Your task to perform on an android device: Search for a 3D printer on aliexpress. Image 0: 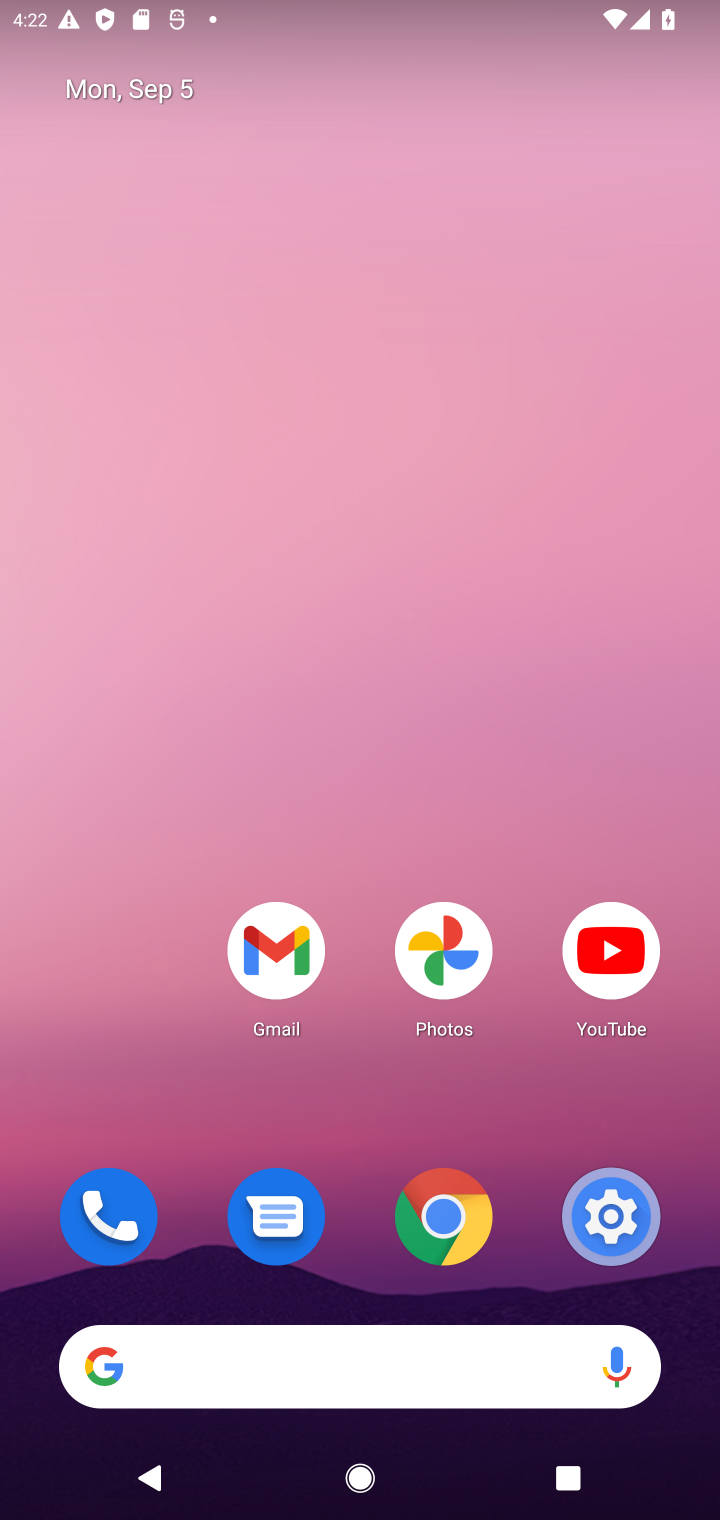
Step 0: press home button
Your task to perform on an android device: Search for a 3D printer on aliexpress. Image 1: 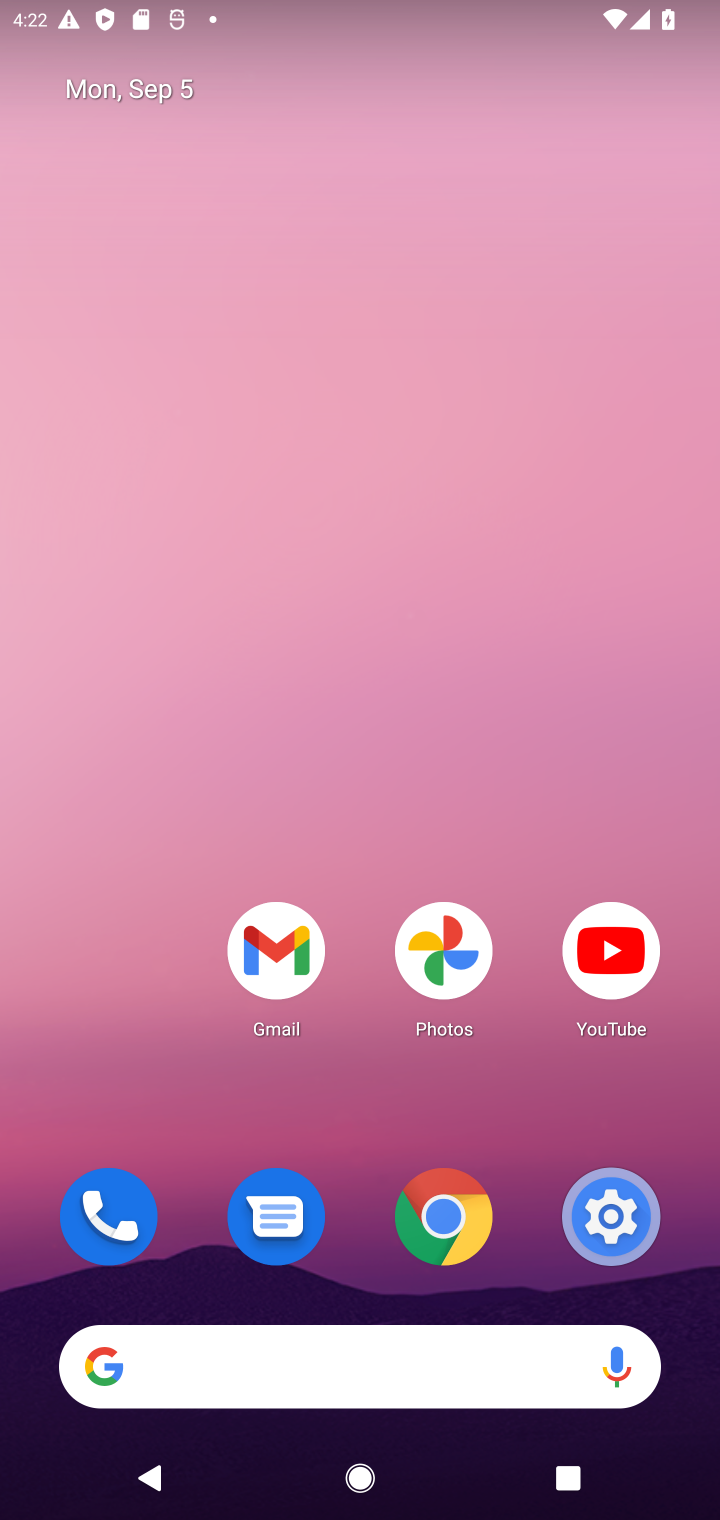
Step 1: click (81, 1370)
Your task to perform on an android device: Search for a 3D printer on aliexpress. Image 2: 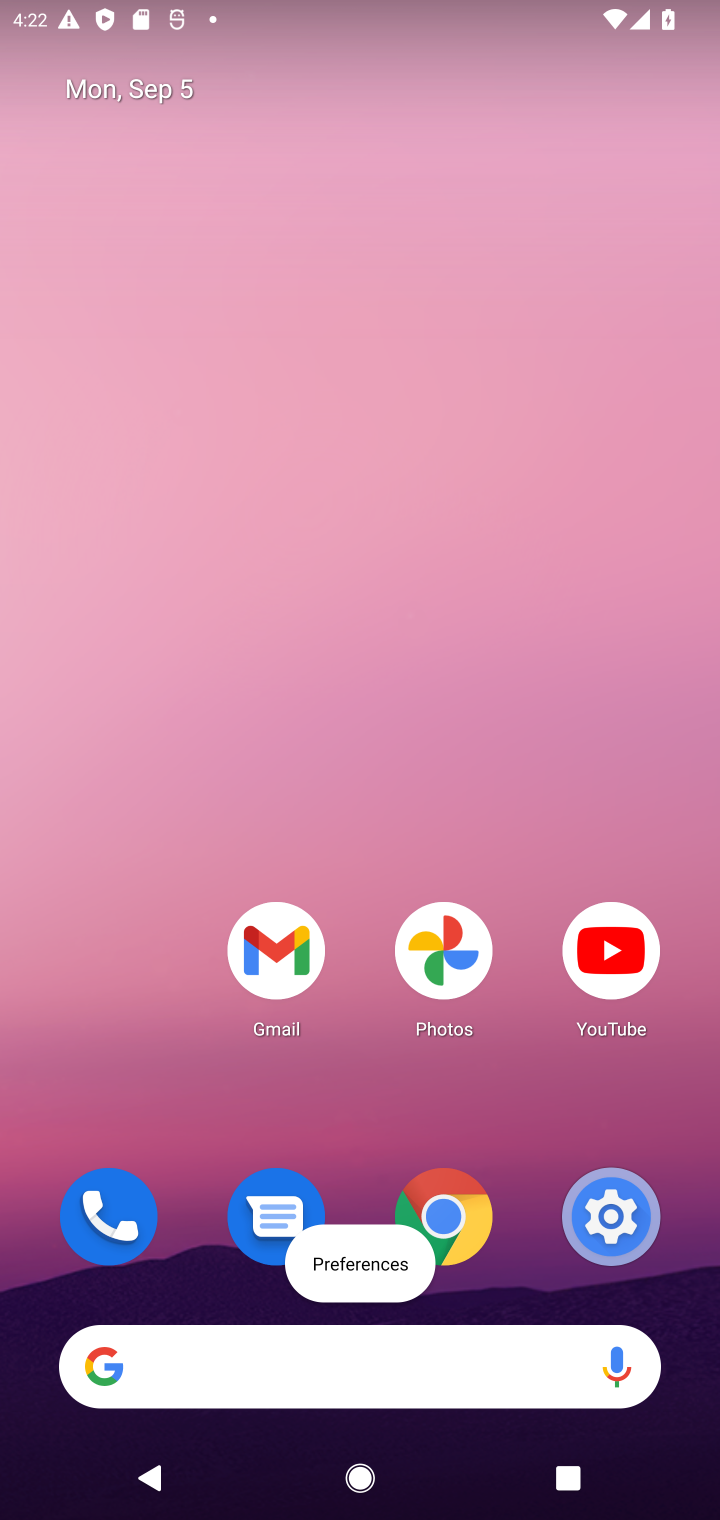
Step 2: click (98, 1349)
Your task to perform on an android device: Search for a 3D printer on aliexpress. Image 3: 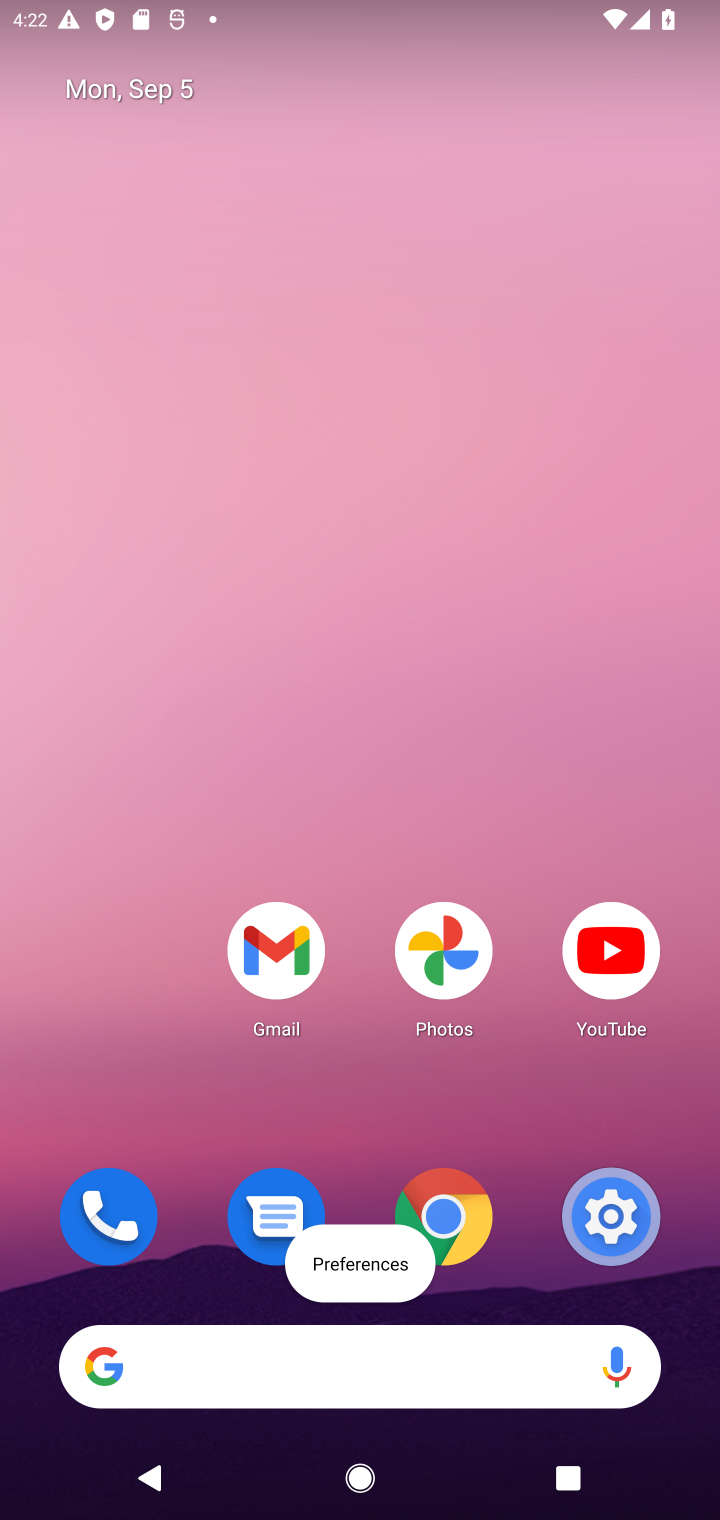
Step 3: click (100, 1362)
Your task to perform on an android device: Search for a 3D printer on aliexpress. Image 4: 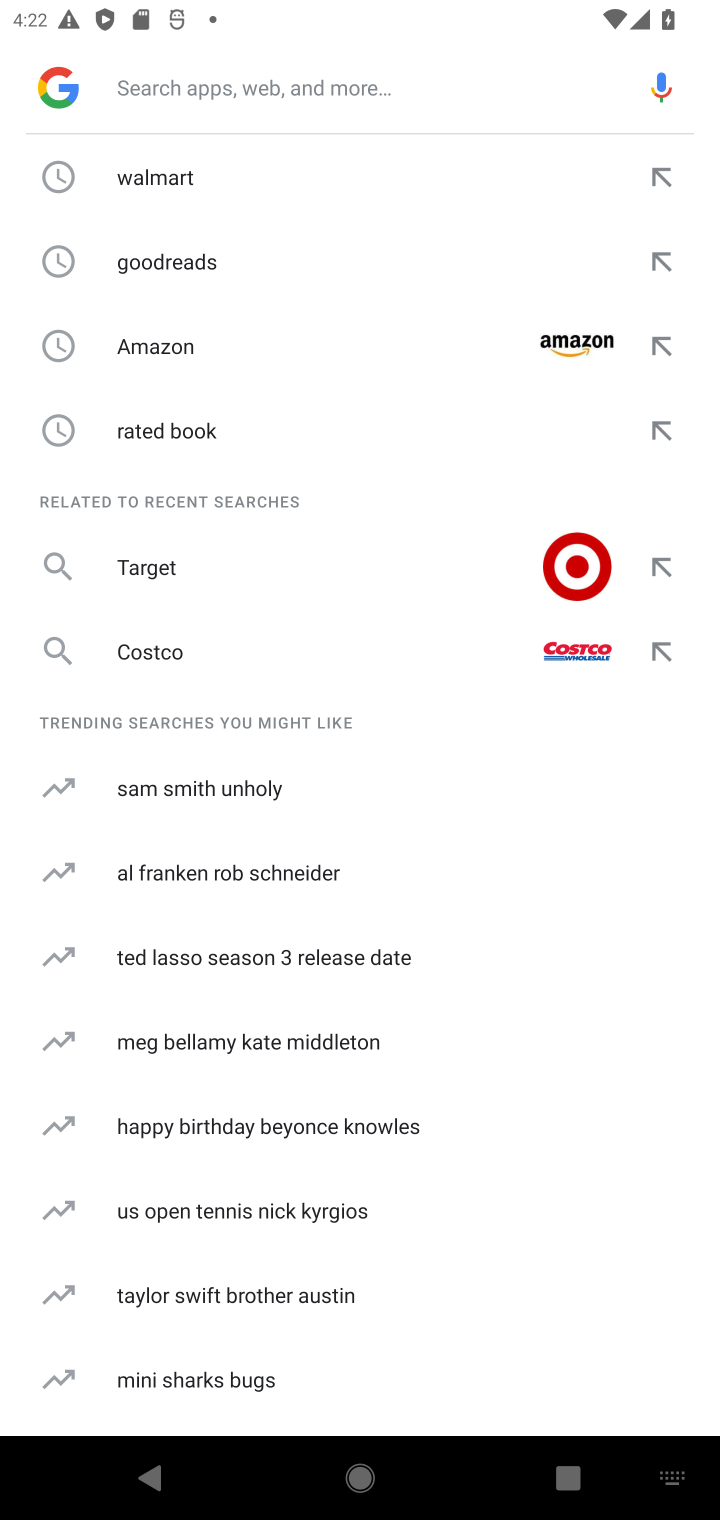
Step 4: type "aliexpress"
Your task to perform on an android device: Search for a 3D printer on aliexpress. Image 5: 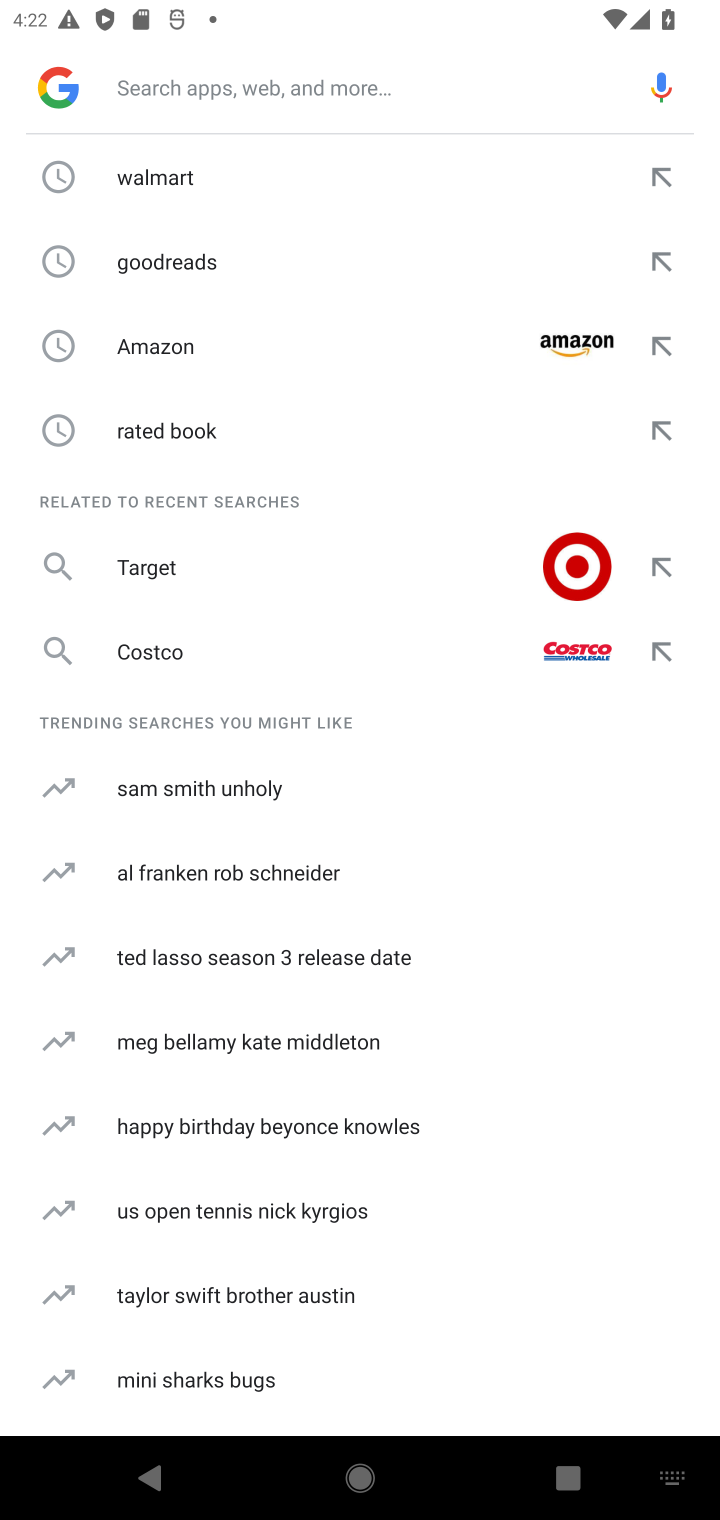
Step 5: click (132, 83)
Your task to perform on an android device: Search for a 3D printer on aliexpress. Image 6: 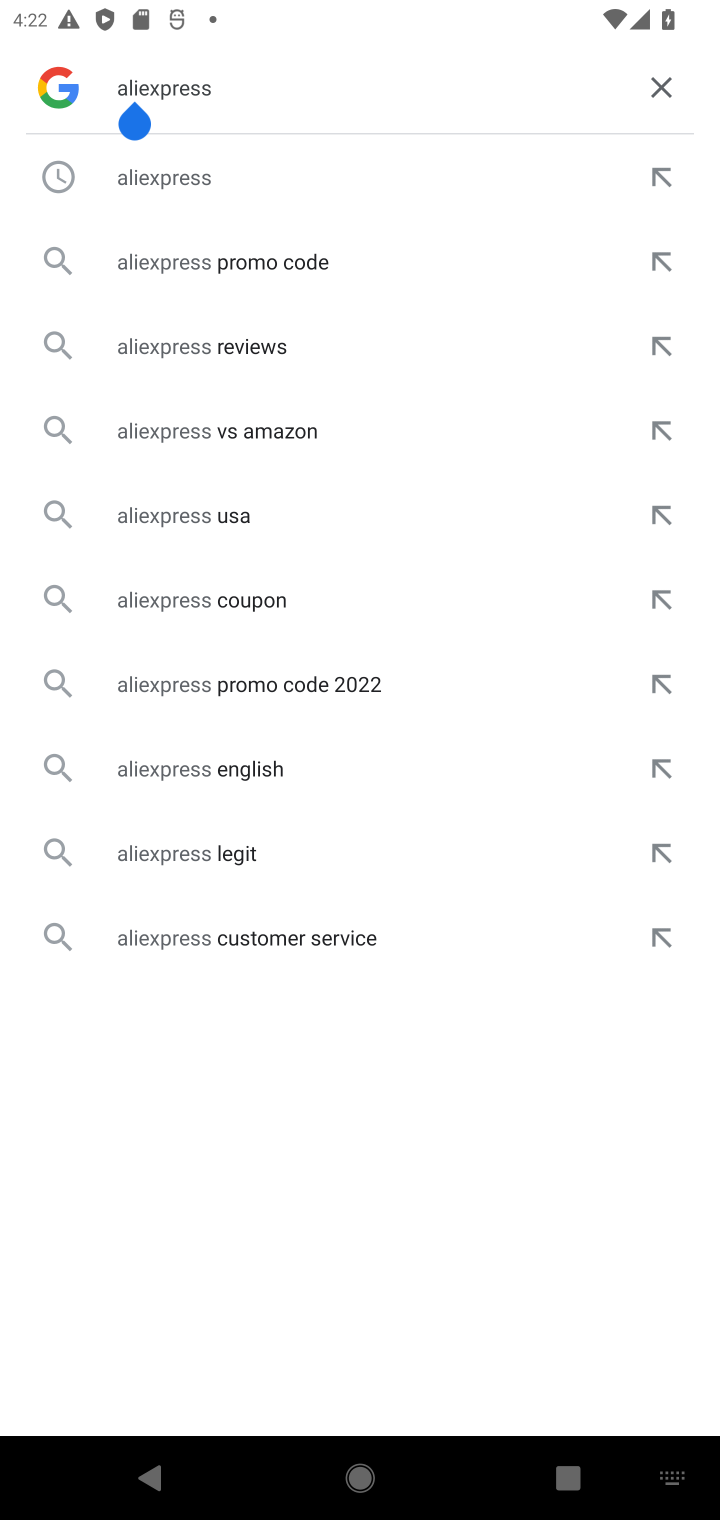
Step 6: press enter
Your task to perform on an android device: Search for a 3D printer on aliexpress. Image 7: 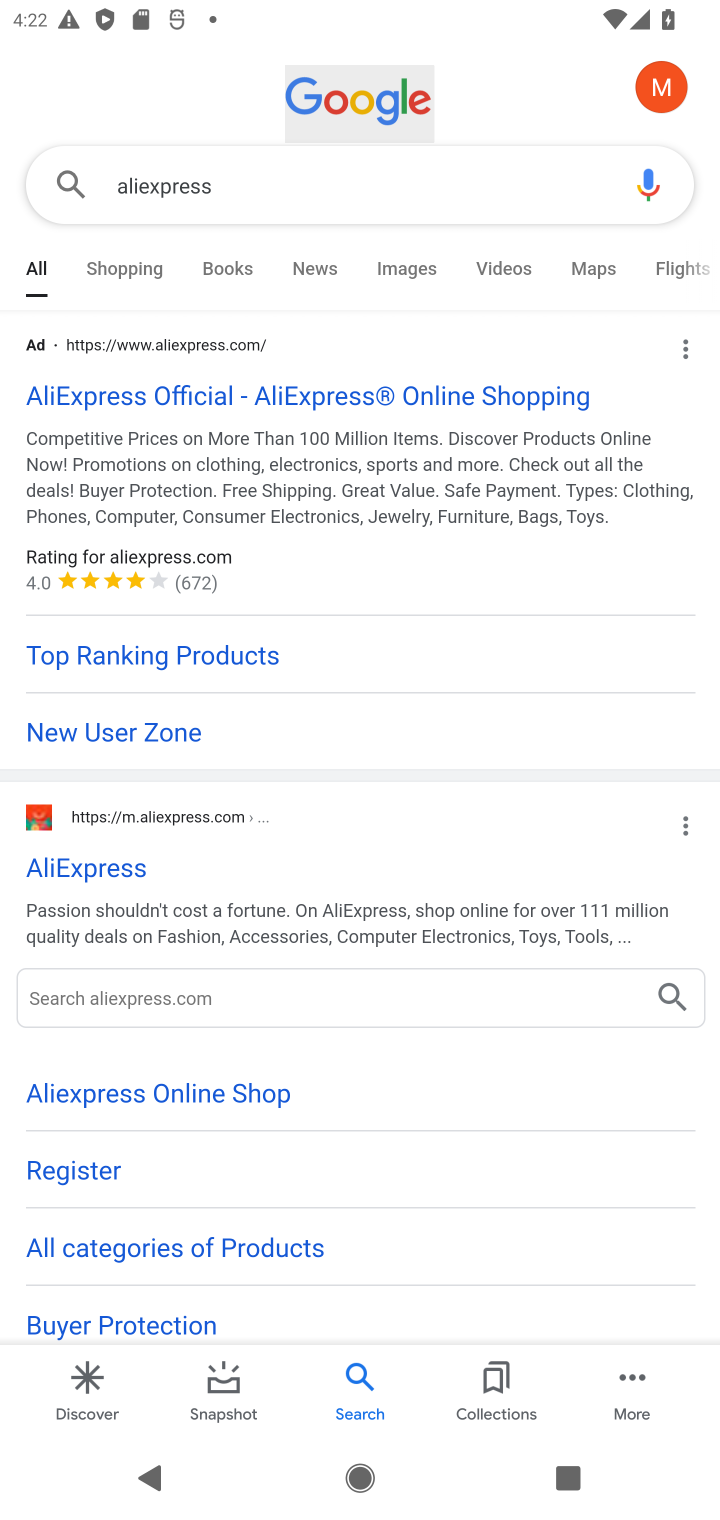
Step 7: click (88, 859)
Your task to perform on an android device: Search for a 3D printer on aliexpress. Image 8: 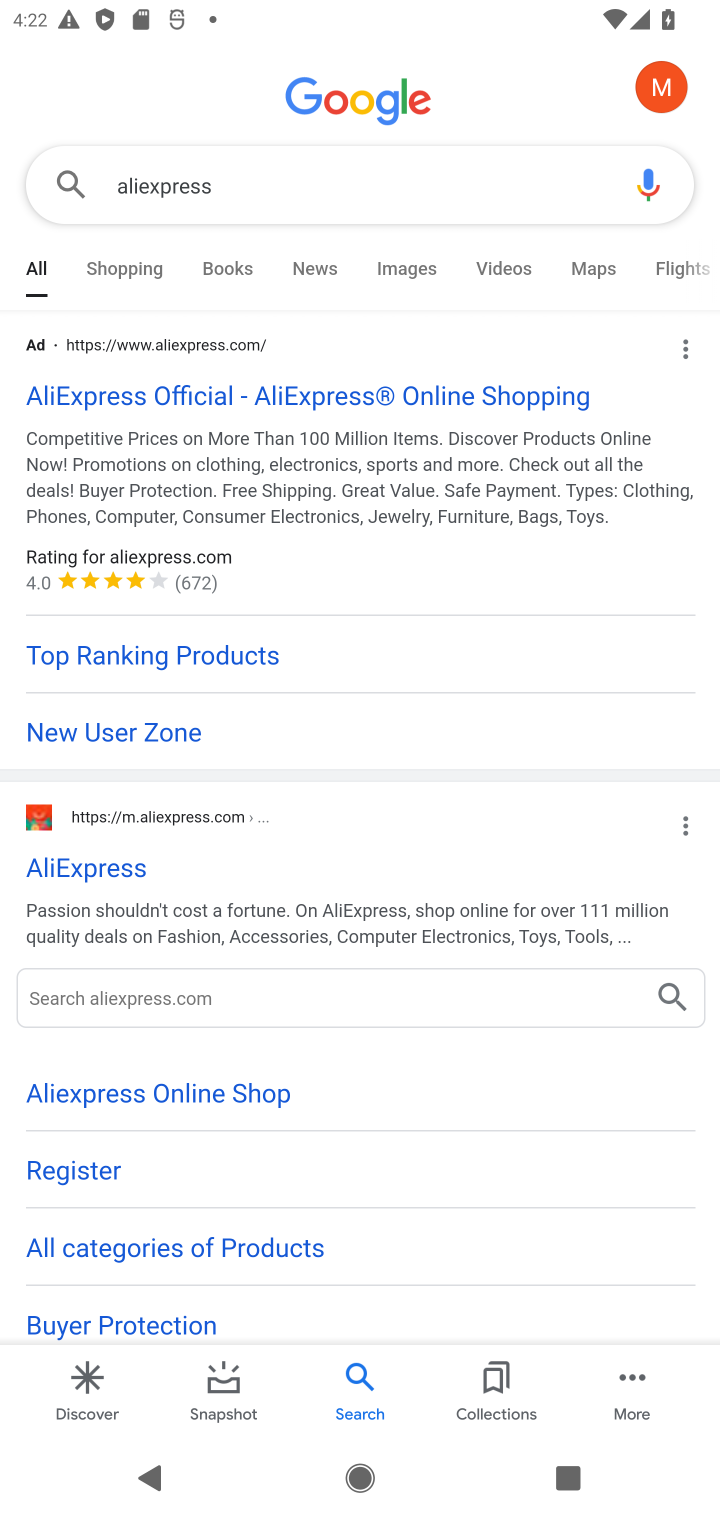
Step 8: click (94, 870)
Your task to perform on an android device: Search for a 3D printer on aliexpress. Image 9: 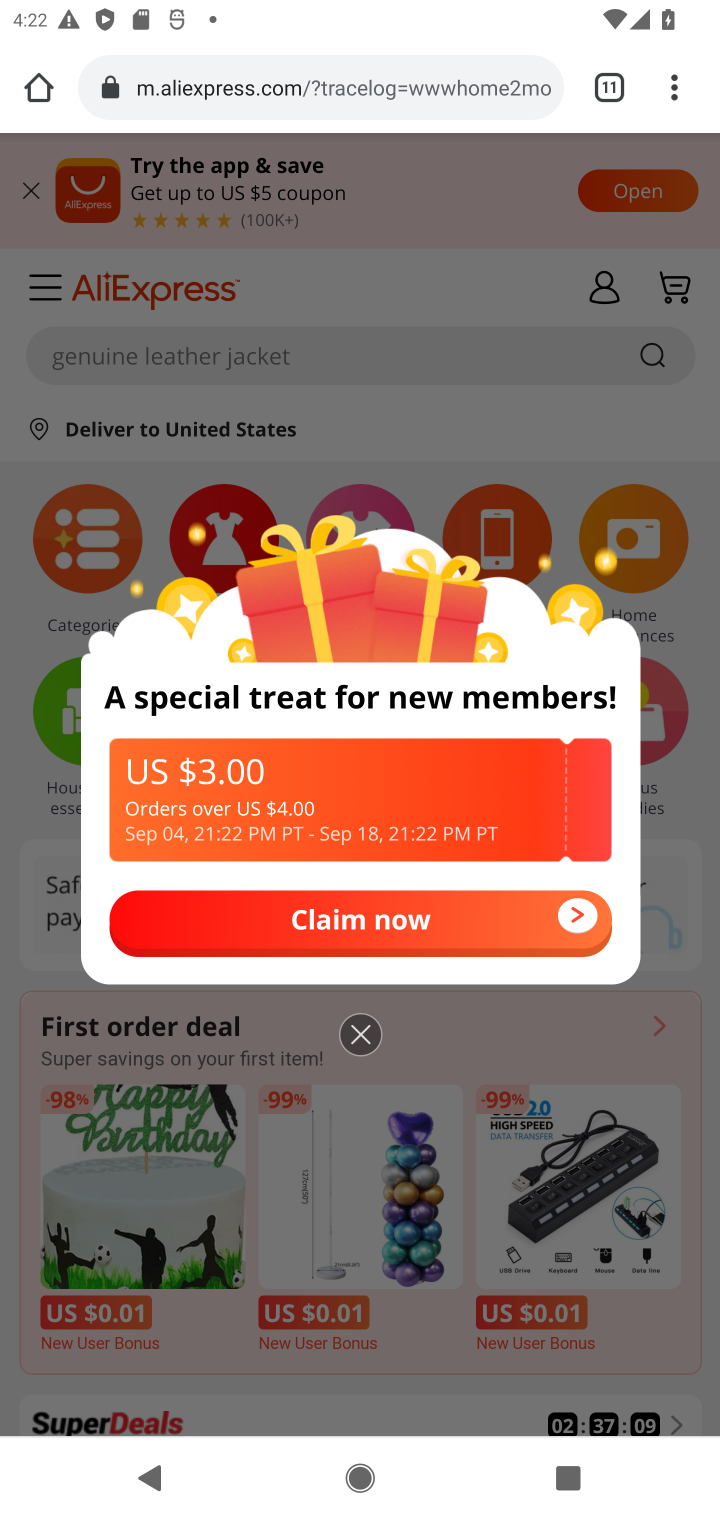
Step 9: click (352, 1032)
Your task to perform on an android device: Search for a 3D printer on aliexpress. Image 10: 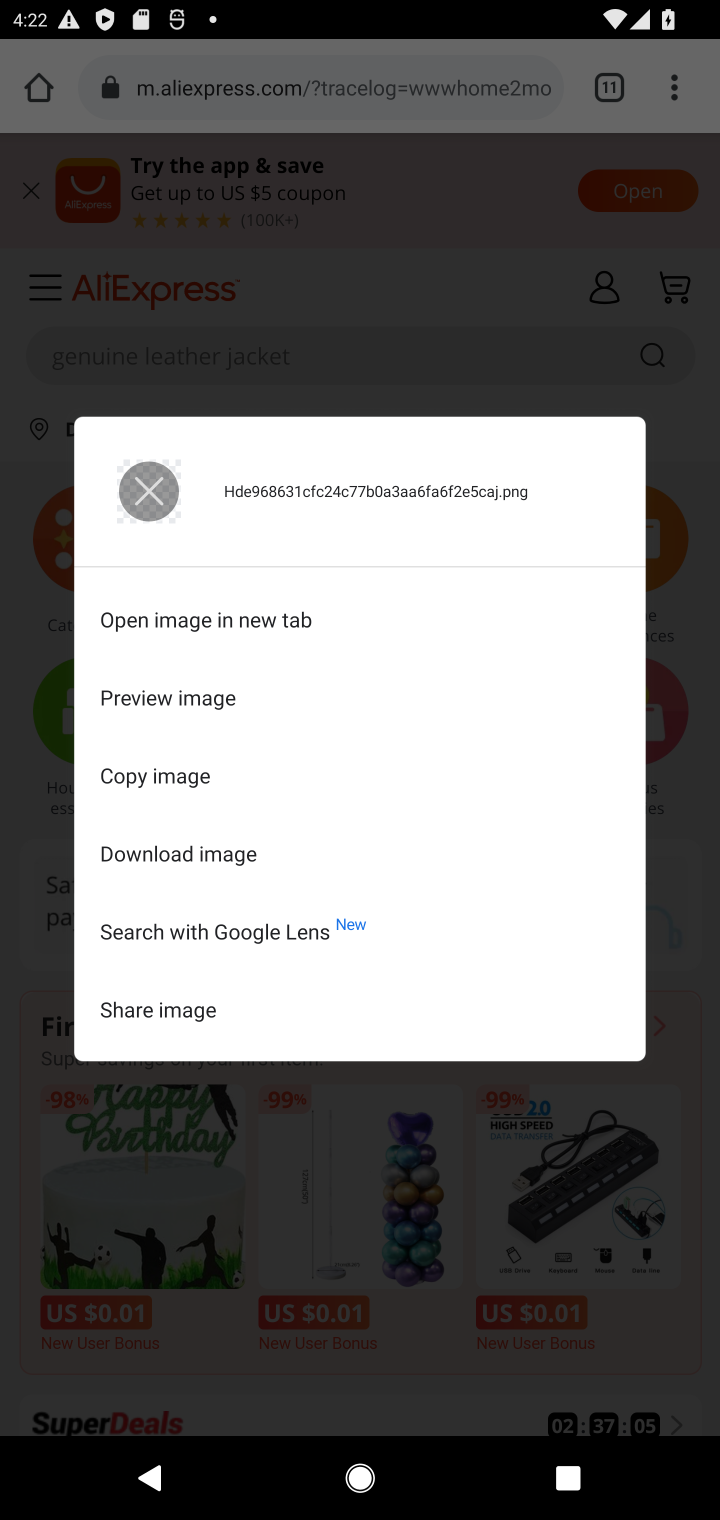
Step 10: click (146, 491)
Your task to perform on an android device: Search for a 3D printer on aliexpress. Image 11: 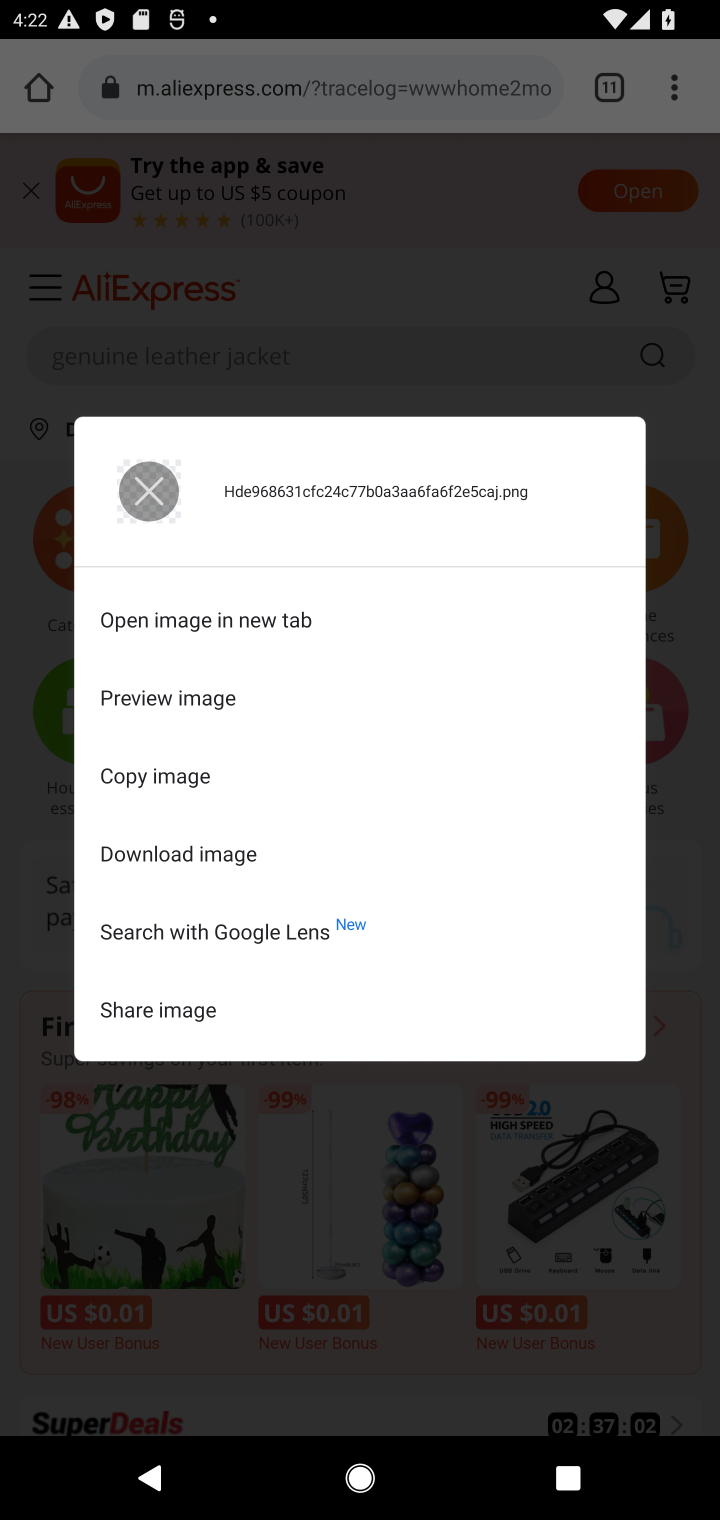
Step 11: click (142, 486)
Your task to perform on an android device: Search for a 3D printer on aliexpress. Image 12: 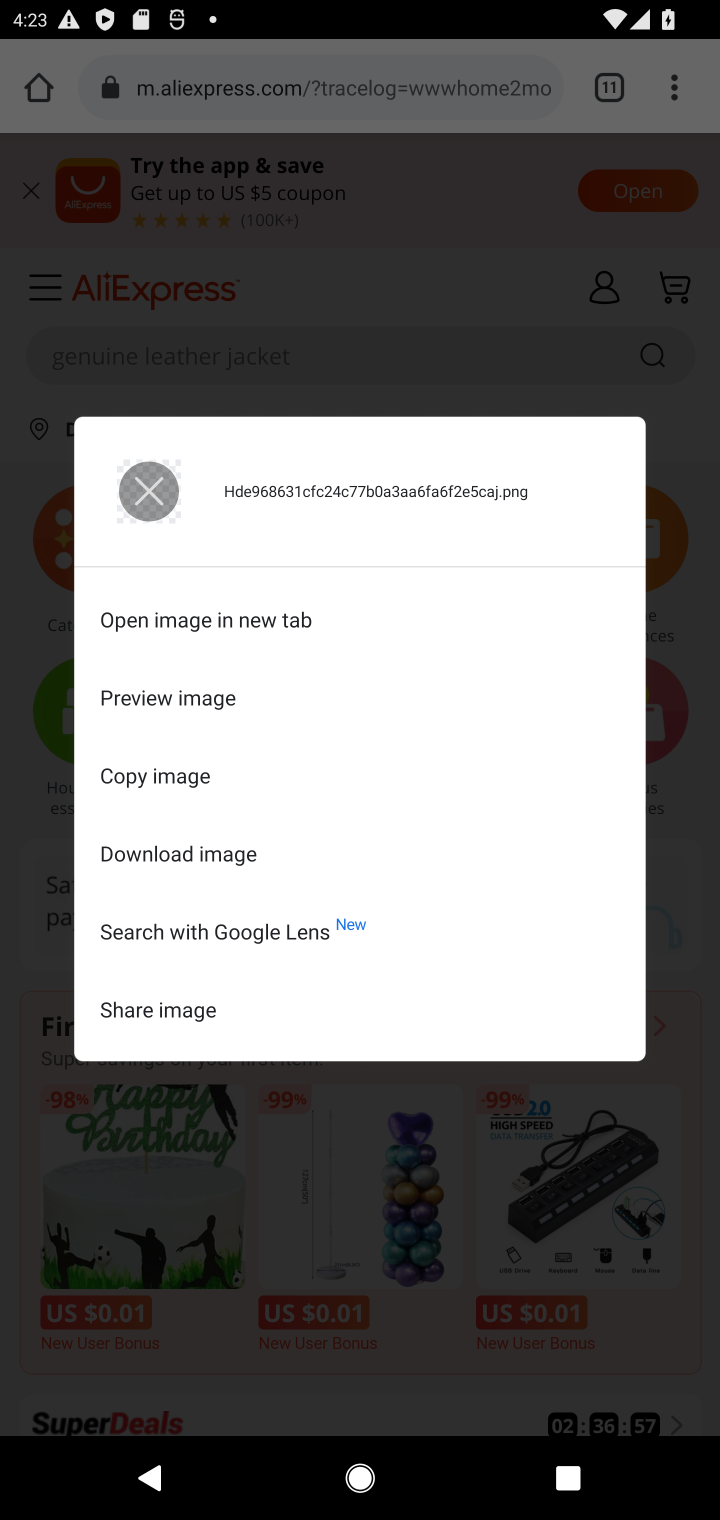
Step 12: click (167, 487)
Your task to perform on an android device: Search for a 3D printer on aliexpress. Image 13: 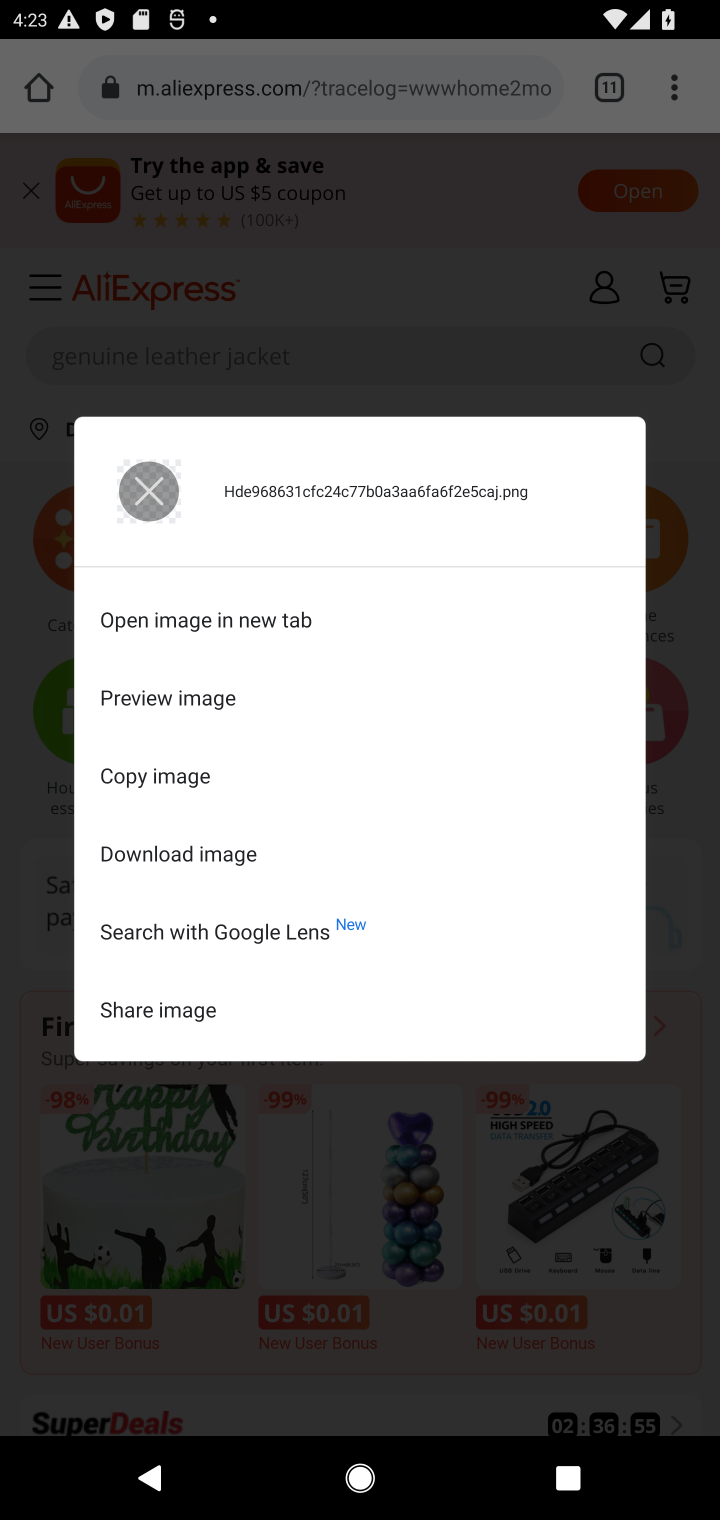
Step 13: click (135, 494)
Your task to perform on an android device: Search for a 3D printer on aliexpress. Image 14: 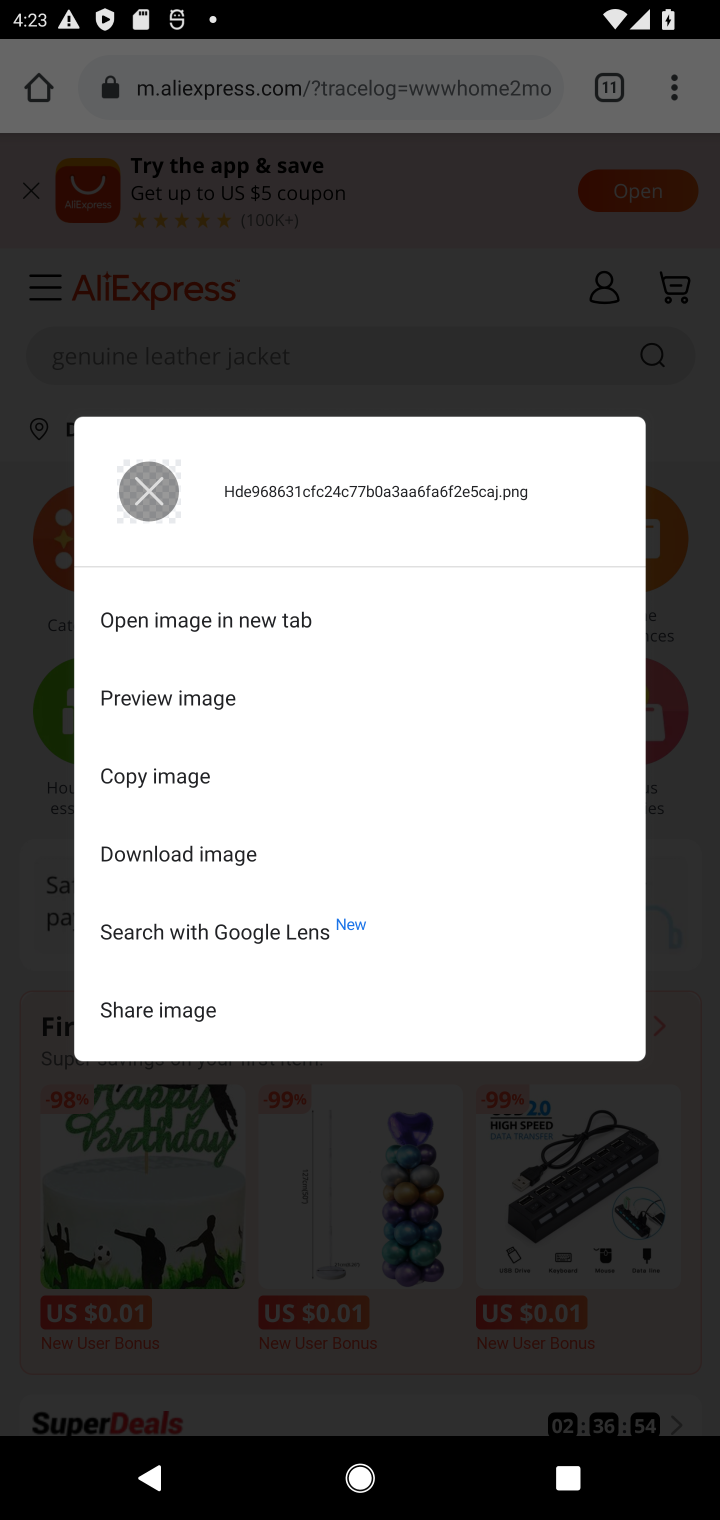
Step 14: click (148, 494)
Your task to perform on an android device: Search for a 3D printer on aliexpress. Image 15: 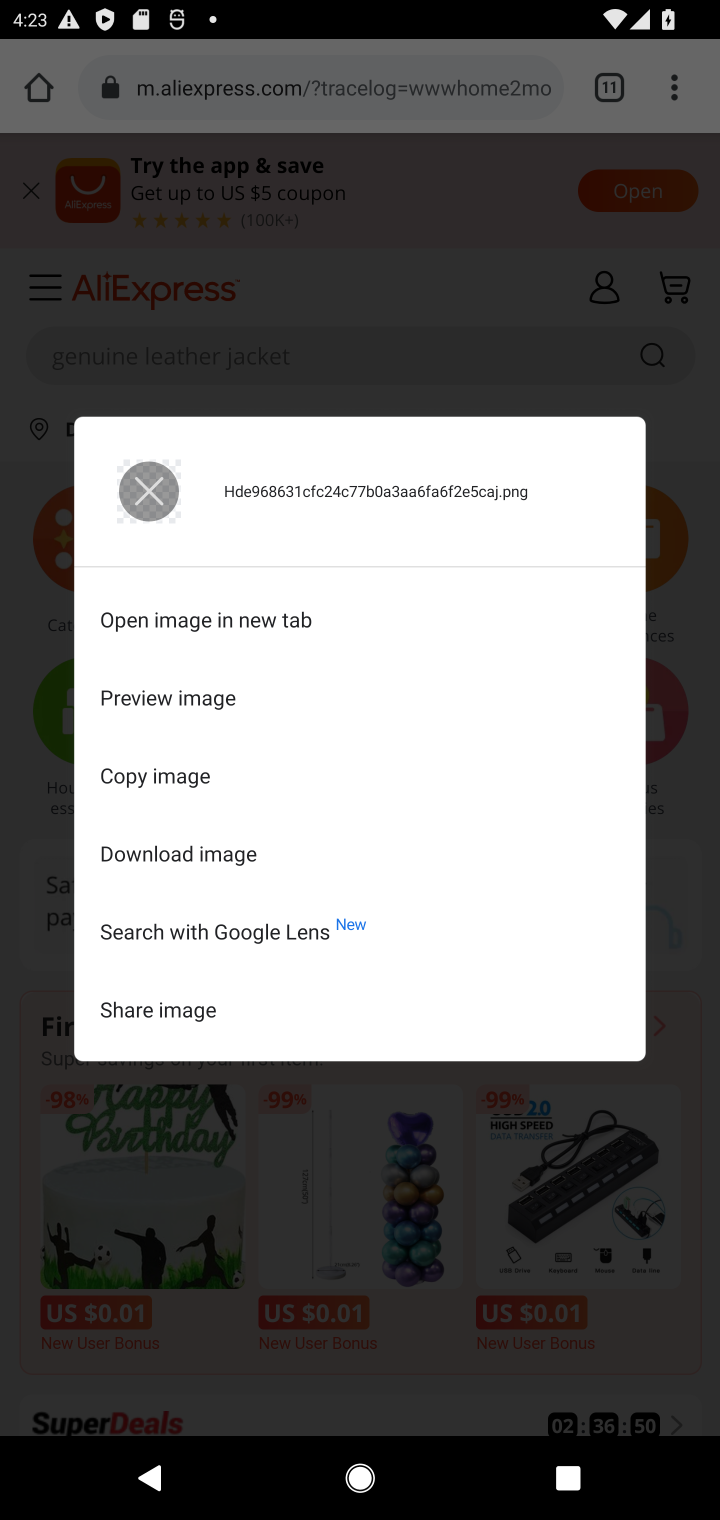
Step 15: click (143, 484)
Your task to perform on an android device: Search for a 3D printer on aliexpress. Image 16: 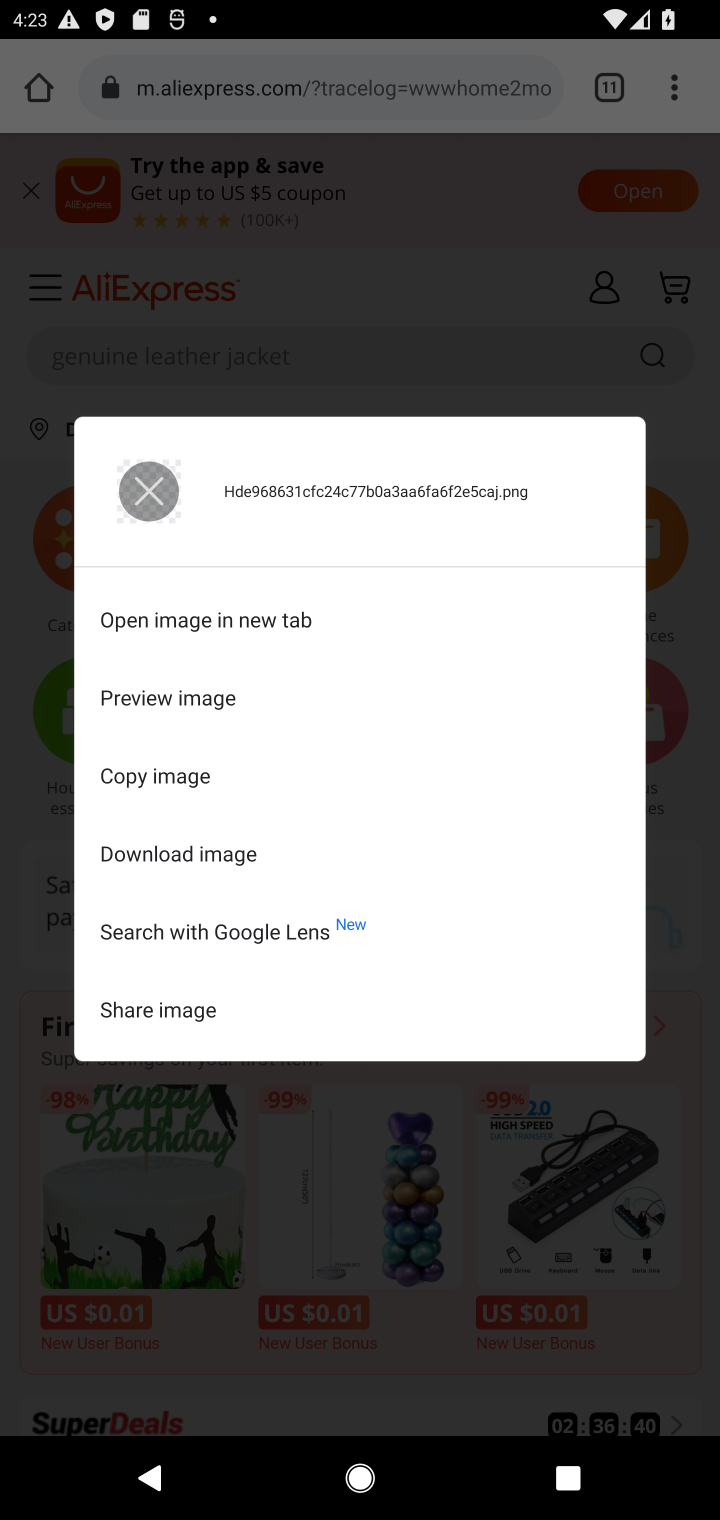
Step 16: click (152, 473)
Your task to perform on an android device: Search for a 3D printer on aliexpress. Image 17: 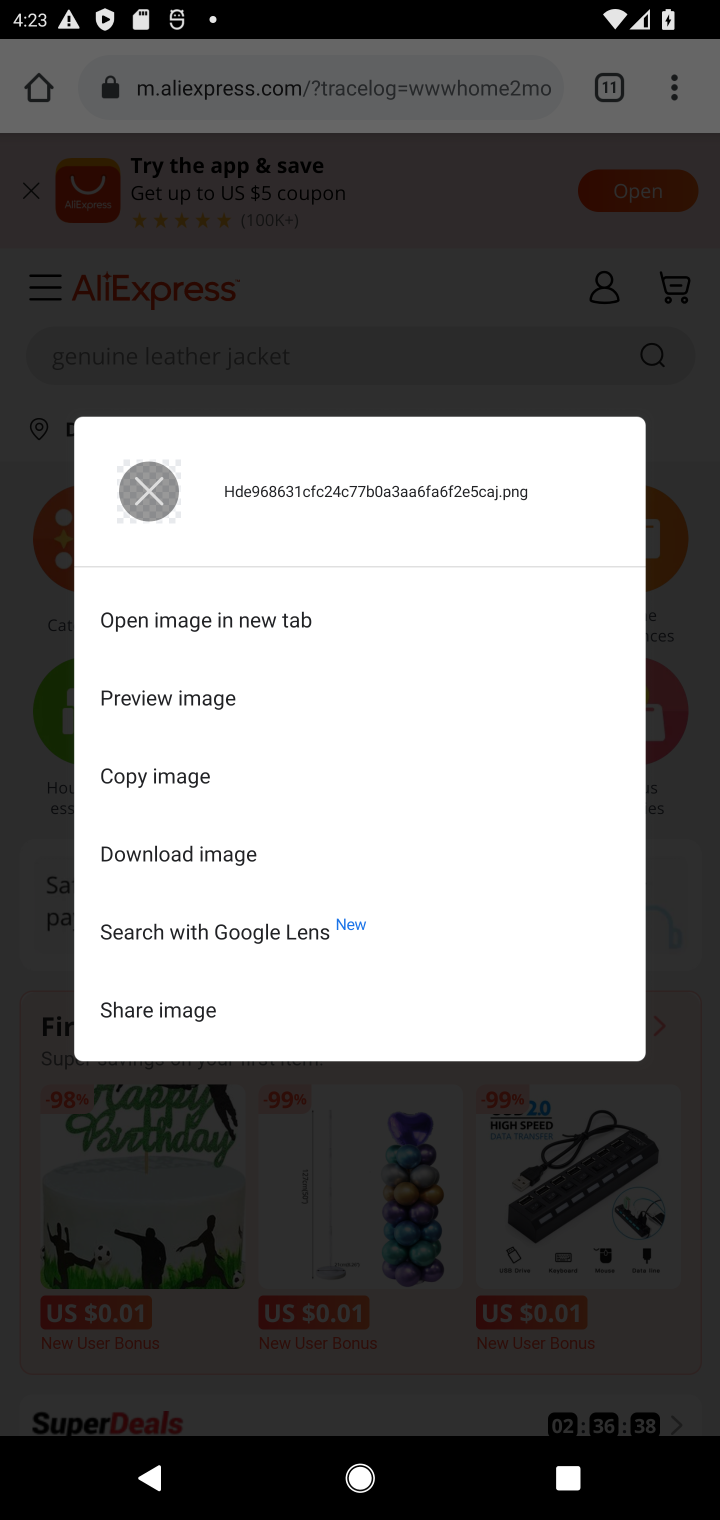
Step 17: press back button
Your task to perform on an android device: Search for a 3D printer on aliexpress. Image 18: 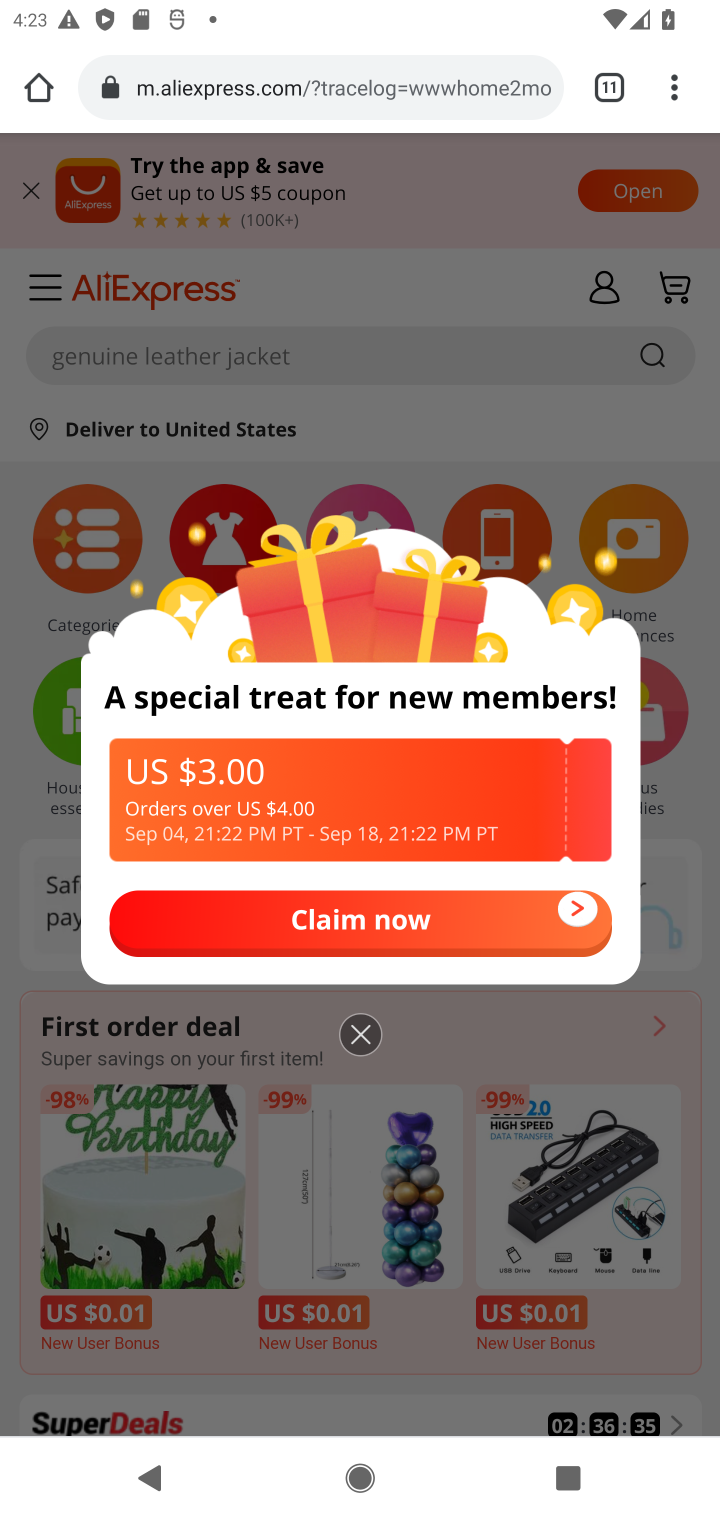
Step 18: click (355, 1036)
Your task to perform on an android device: Search for a 3D printer on aliexpress. Image 19: 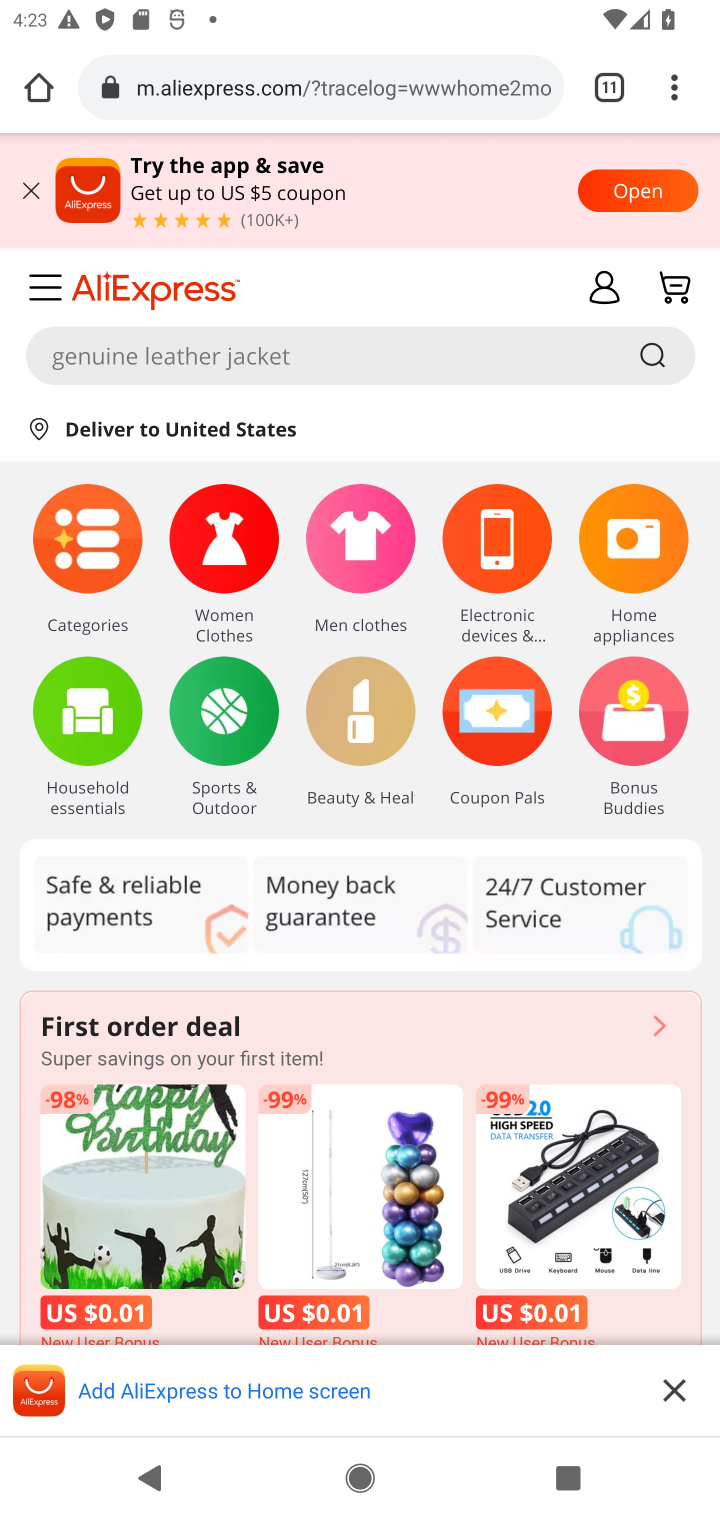
Step 19: click (202, 350)
Your task to perform on an android device: Search for a 3D printer on aliexpress. Image 20: 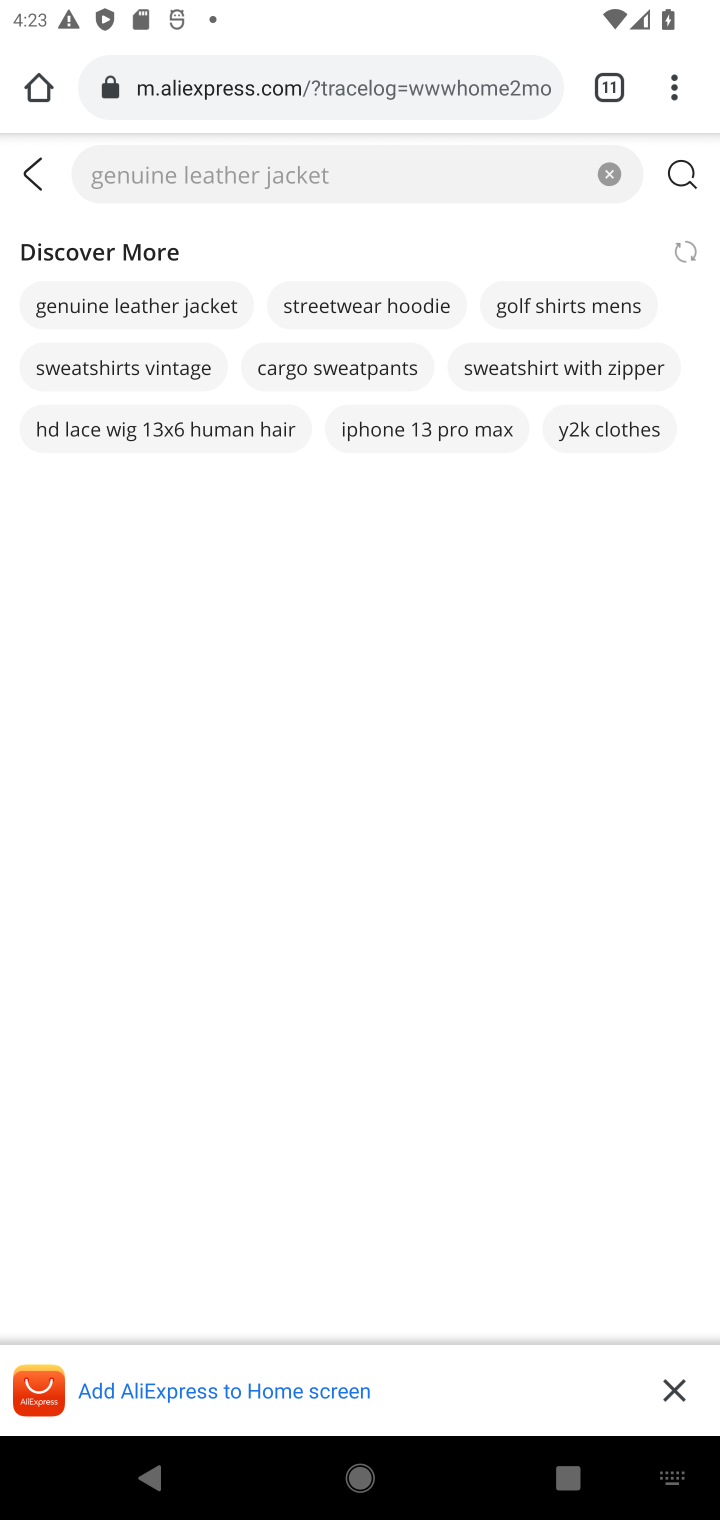
Step 20: type "3D printer"
Your task to perform on an android device: Search for a 3D printer on aliexpress. Image 21: 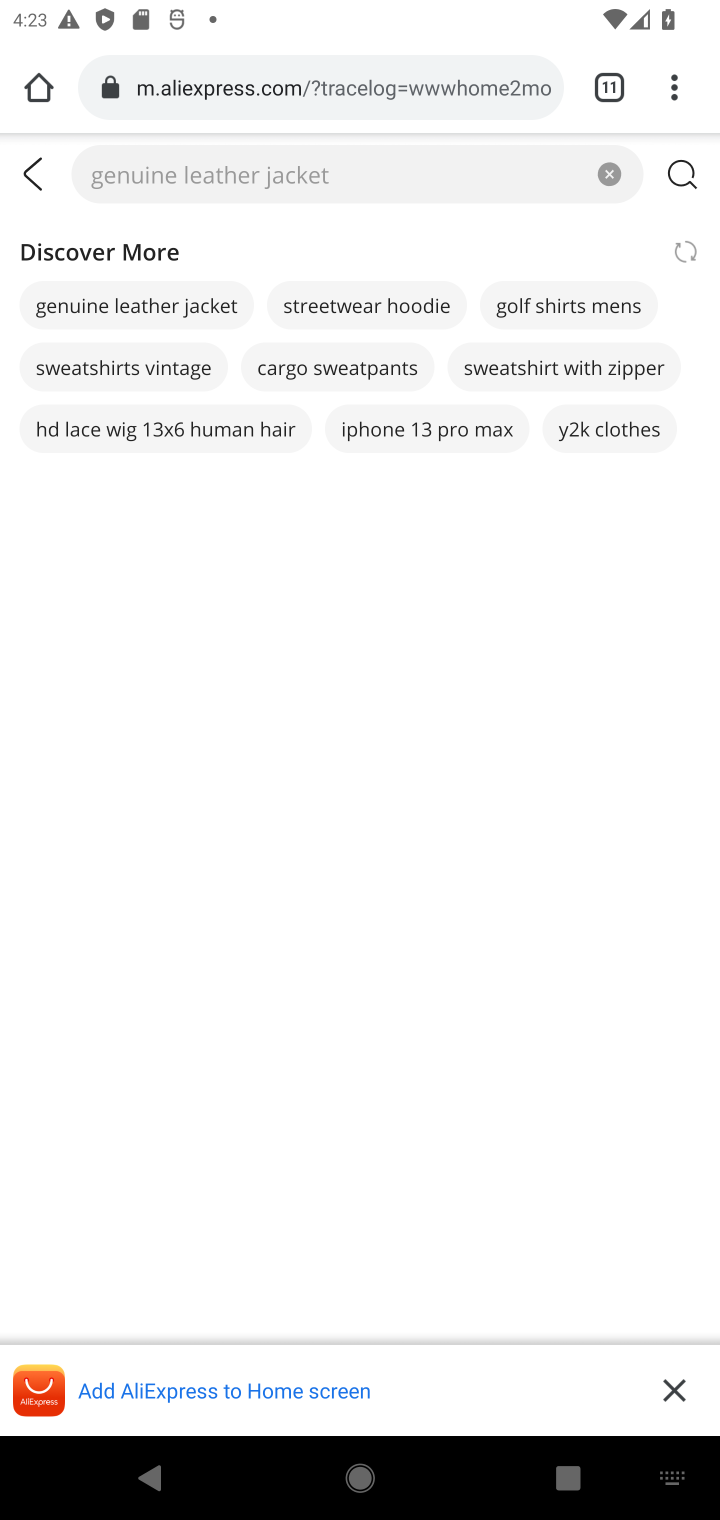
Step 21: click (346, 170)
Your task to perform on an android device: Search for a 3D printer on aliexpress. Image 22: 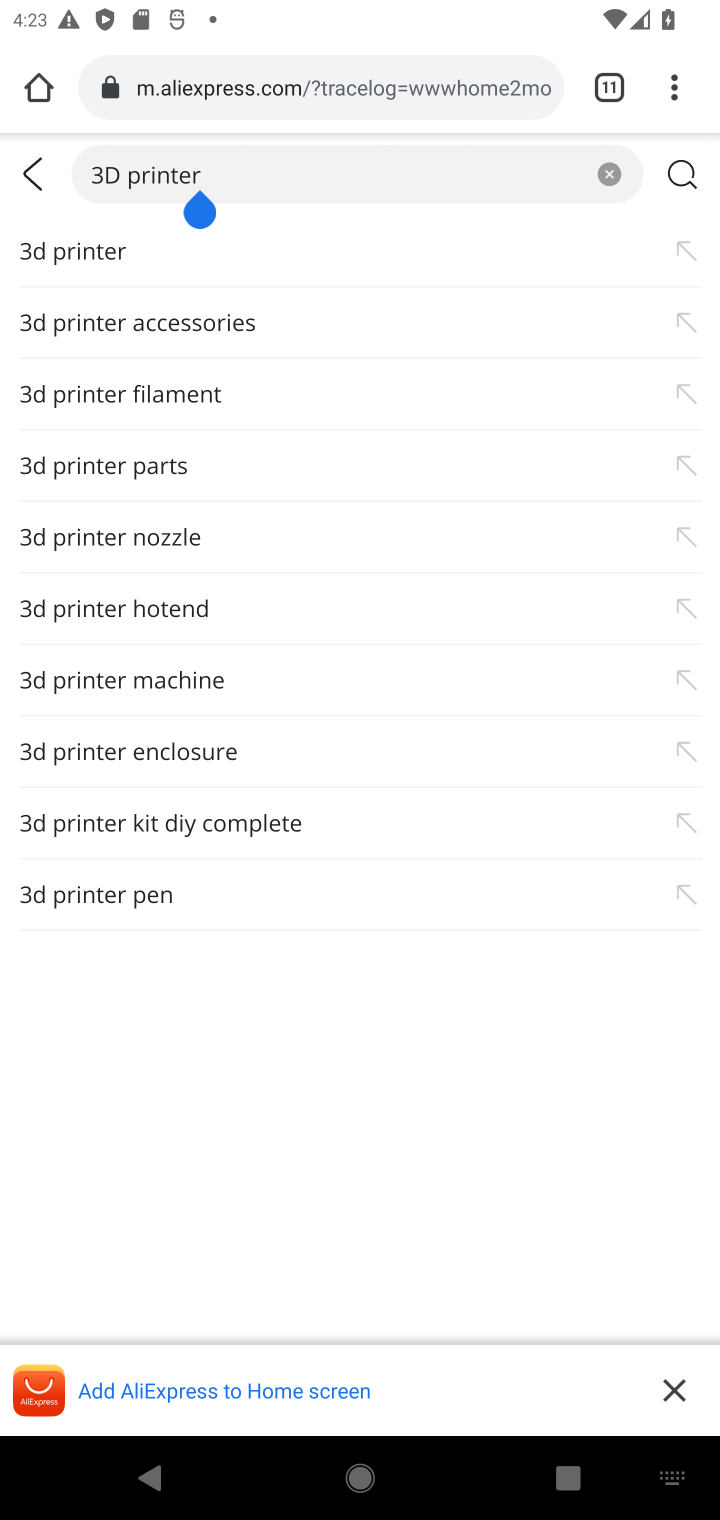
Step 22: press enter
Your task to perform on an android device: Search for a 3D printer on aliexpress. Image 23: 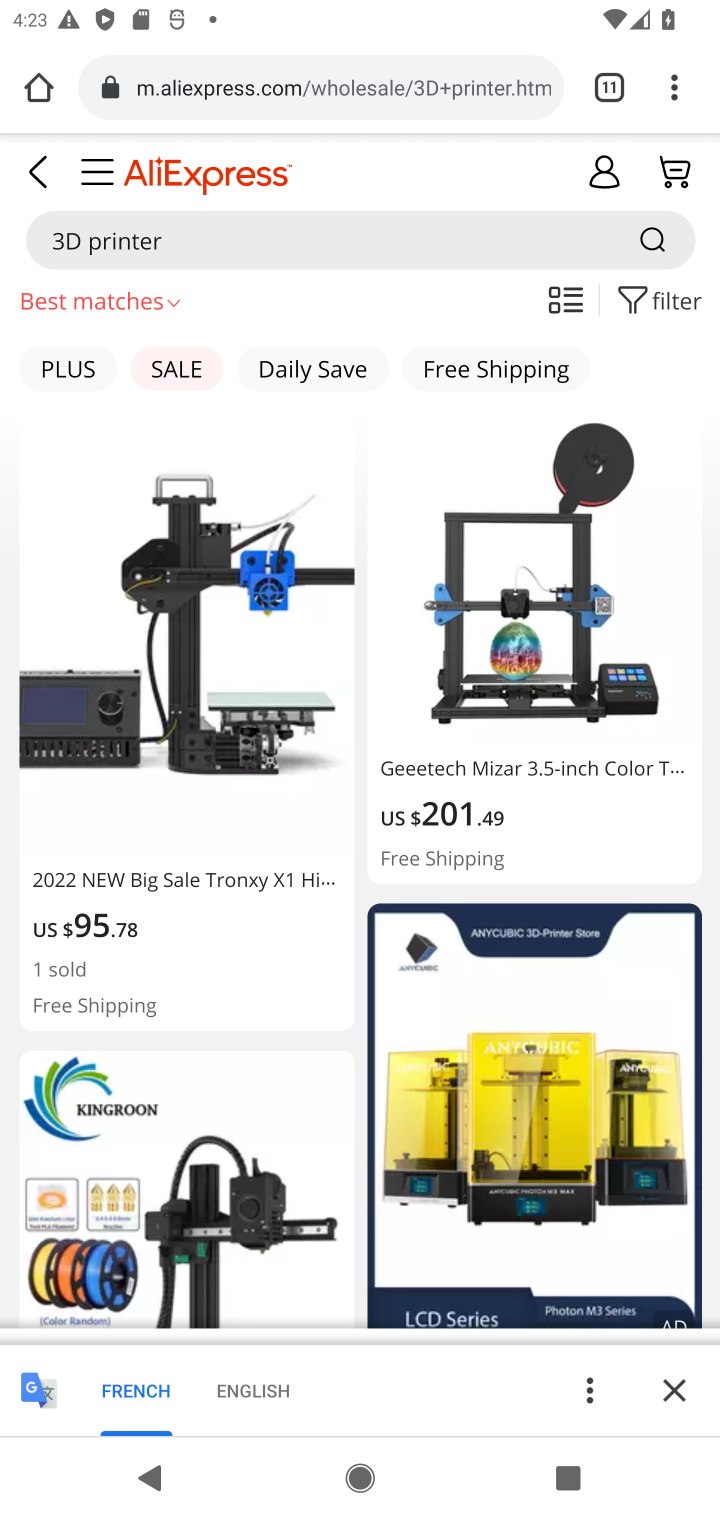
Step 23: task complete